Your task to perform on an android device: toggle improve location accuracy Image 0: 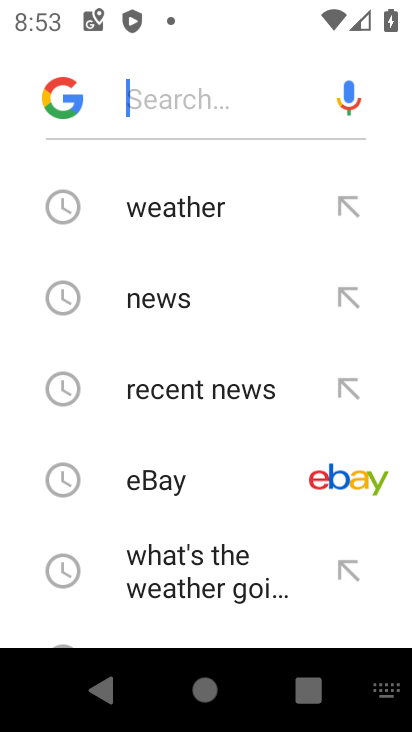
Step 0: press home button
Your task to perform on an android device: toggle improve location accuracy Image 1: 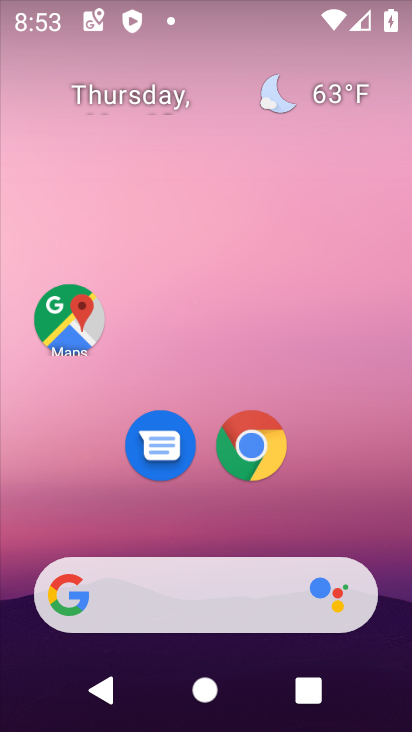
Step 1: drag from (224, 503) to (223, 187)
Your task to perform on an android device: toggle improve location accuracy Image 2: 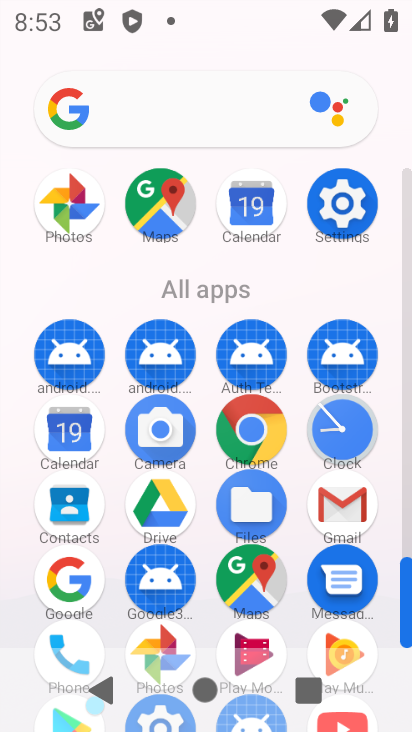
Step 2: click (344, 231)
Your task to perform on an android device: toggle improve location accuracy Image 3: 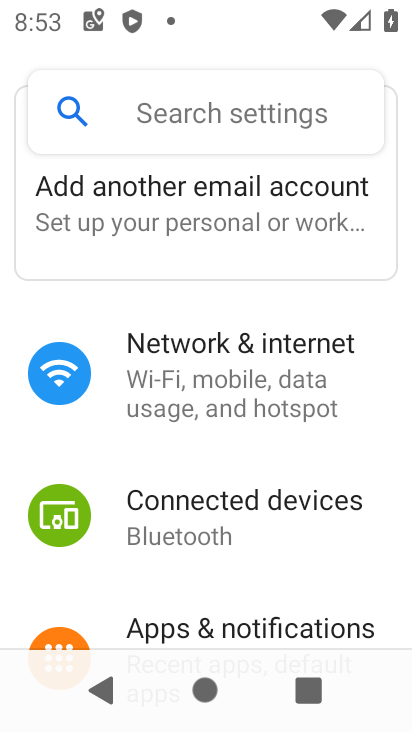
Step 3: drag from (194, 583) to (249, 340)
Your task to perform on an android device: toggle improve location accuracy Image 4: 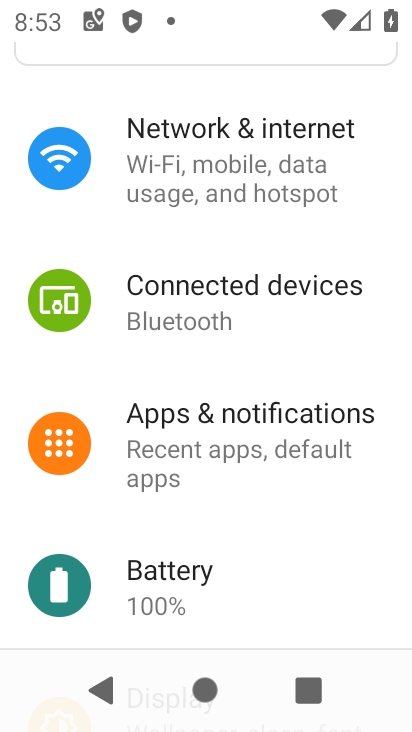
Step 4: drag from (241, 596) to (270, 334)
Your task to perform on an android device: toggle improve location accuracy Image 5: 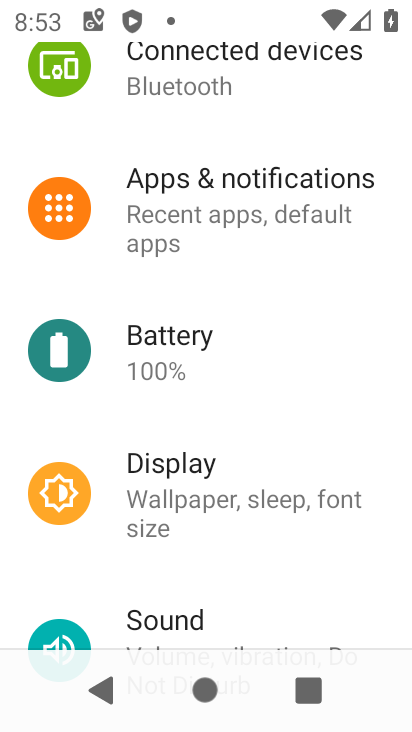
Step 5: drag from (191, 544) to (213, 428)
Your task to perform on an android device: toggle improve location accuracy Image 6: 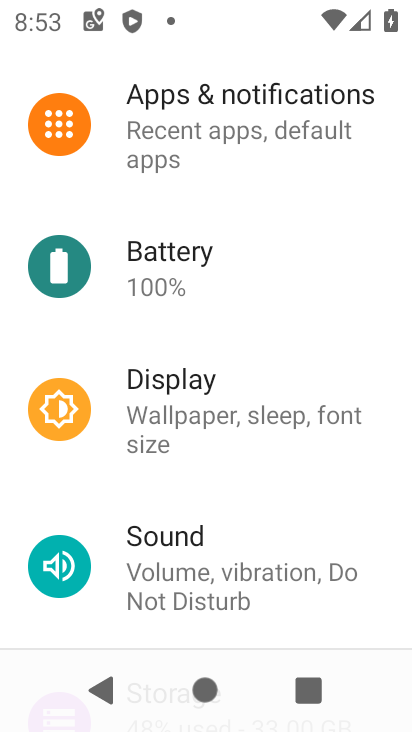
Step 6: drag from (188, 616) to (245, 294)
Your task to perform on an android device: toggle improve location accuracy Image 7: 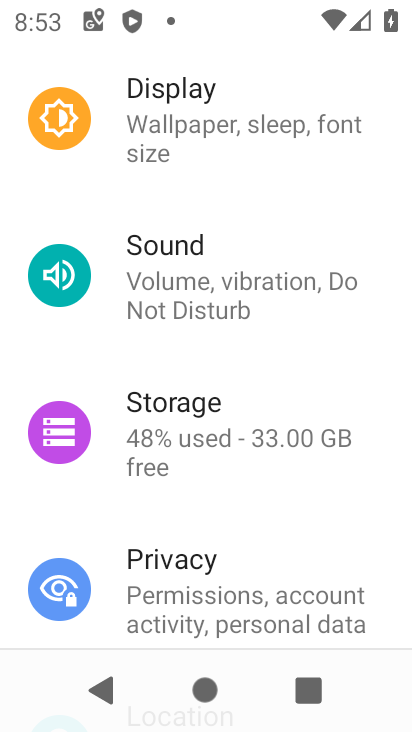
Step 7: drag from (197, 555) to (228, 282)
Your task to perform on an android device: toggle improve location accuracy Image 8: 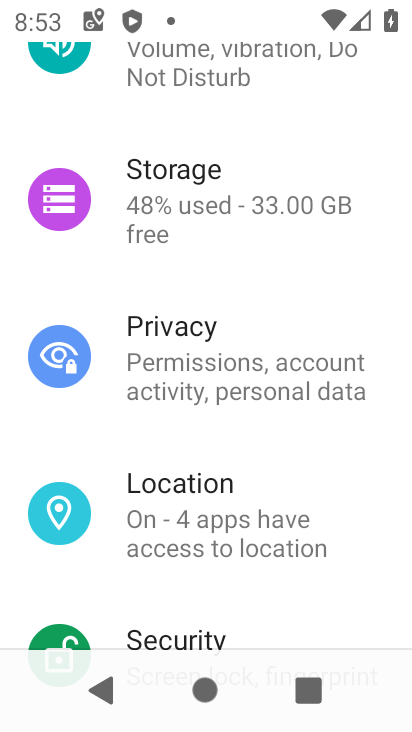
Step 8: drag from (198, 564) to (209, 481)
Your task to perform on an android device: toggle improve location accuracy Image 9: 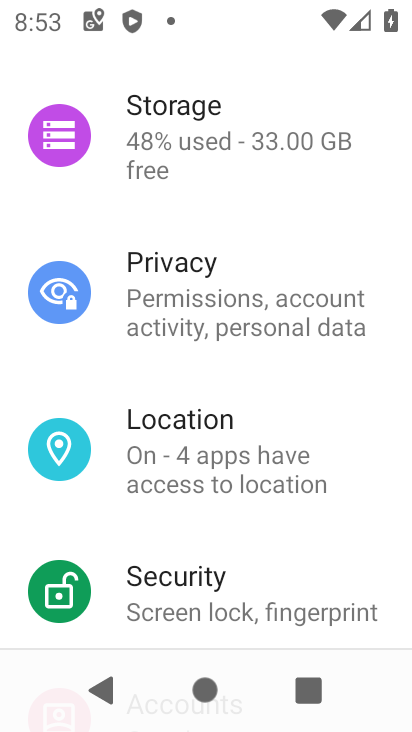
Step 9: click (206, 476)
Your task to perform on an android device: toggle improve location accuracy Image 10: 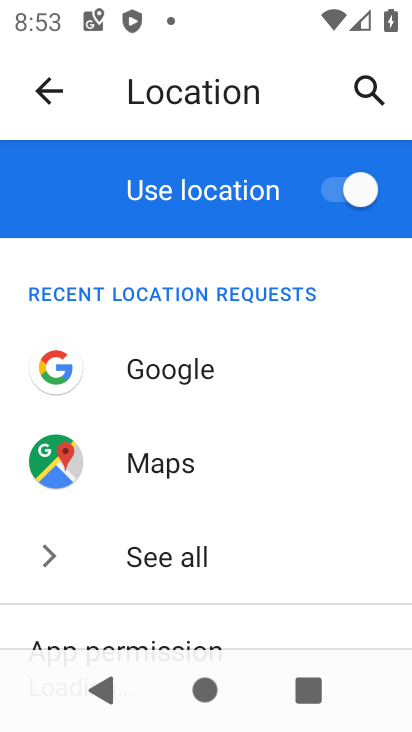
Step 10: drag from (195, 515) to (231, 202)
Your task to perform on an android device: toggle improve location accuracy Image 11: 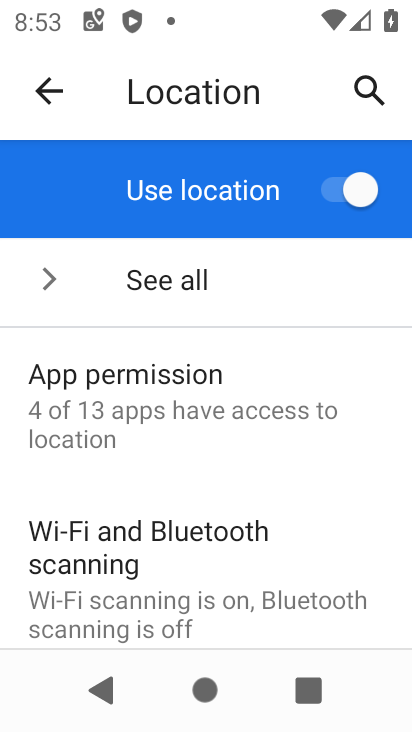
Step 11: drag from (219, 595) to (236, 356)
Your task to perform on an android device: toggle improve location accuracy Image 12: 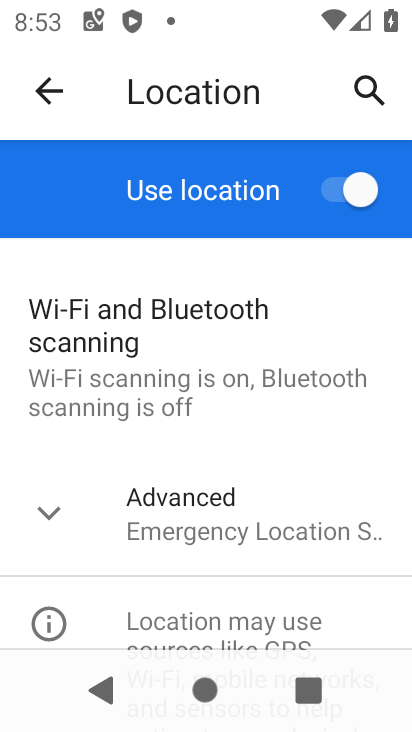
Step 12: click (194, 527)
Your task to perform on an android device: toggle improve location accuracy Image 13: 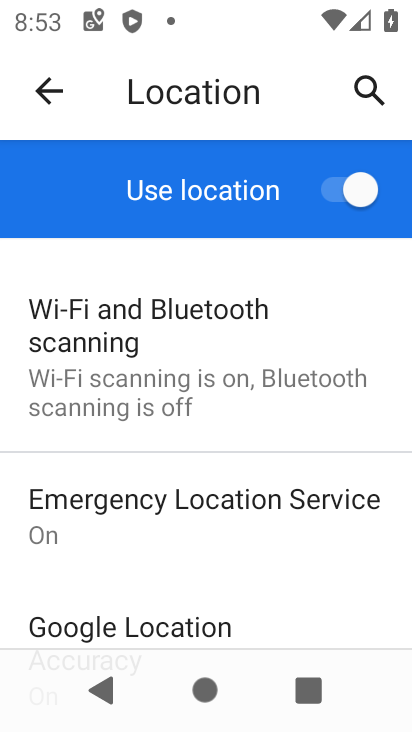
Step 13: drag from (210, 565) to (273, 303)
Your task to perform on an android device: toggle improve location accuracy Image 14: 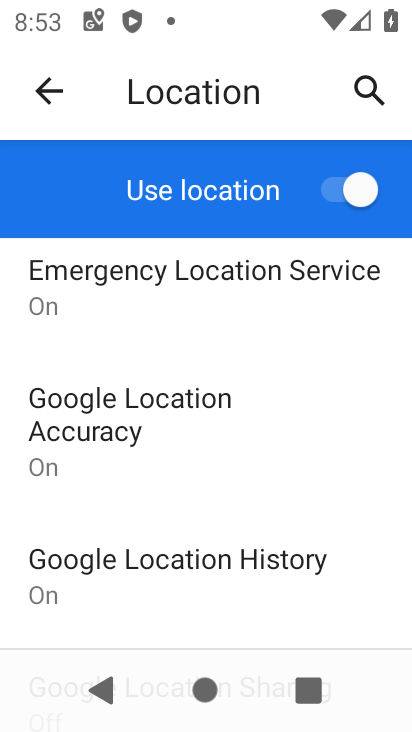
Step 14: click (143, 436)
Your task to perform on an android device: toggle improve location accuracy Image 15: 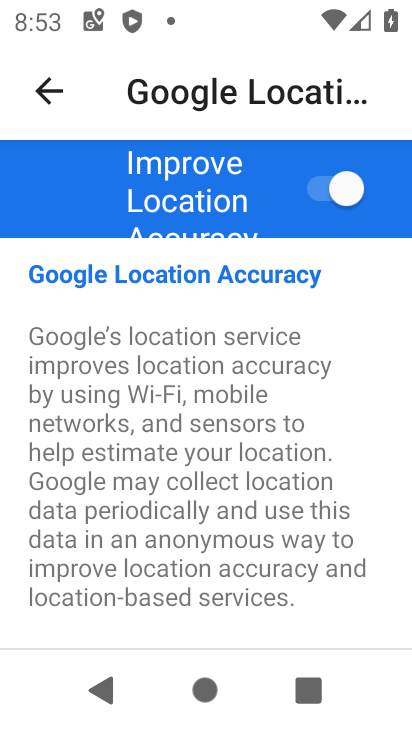
Step 15: click (307, 199)
Your task to perform on an android device: toggle improve location accuracy Image 16: 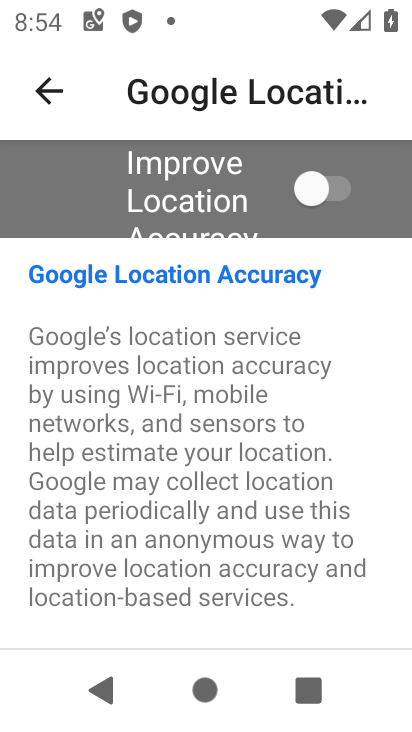
Step 16: task complete